Your task to perform on an android device: Open the Play Movies app and select the watchlist tab. Image 0: 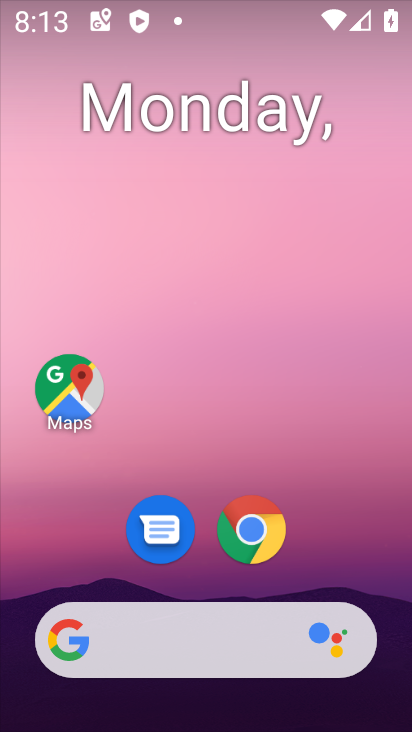
Step 0: drag from (143, 659) to (84, 174)
Your task to perform on an android device: Open the Play Movies app and select the watchlist tab. Image 1: 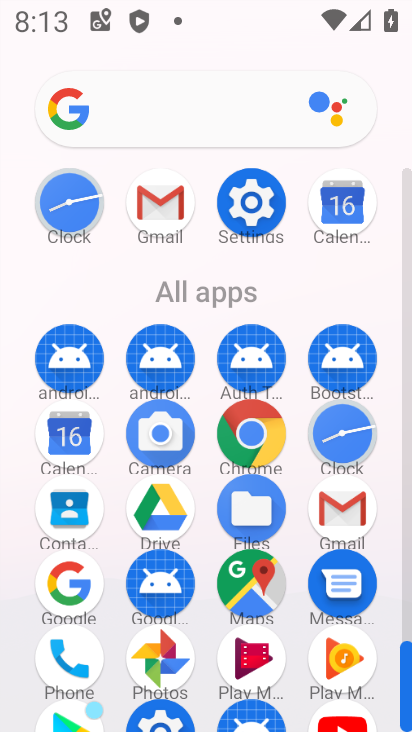
Step 1: click (264, 650)
Your task to perform on an android device: Open the Play Movies app and select the watchlist tab. Image 2: 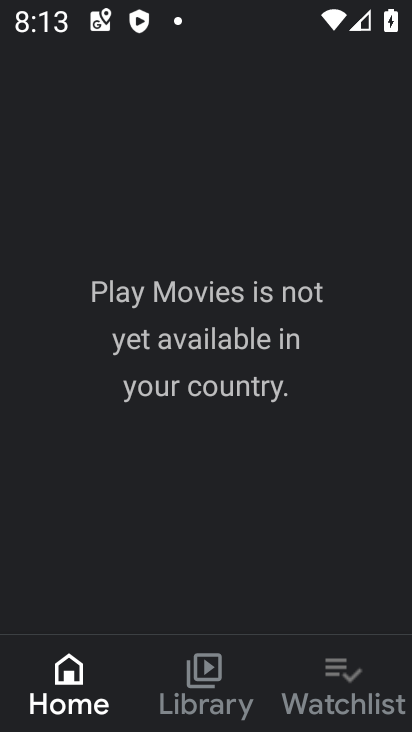
Step 2: click (324, 692)
Your task to perform on an android device: Open the Play Movies app and select the watchlist tab. Image 3: 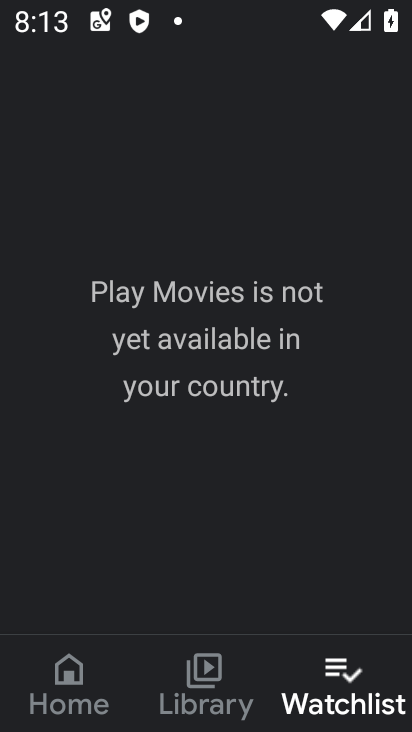
Step 3: task complete